Your task to perform on an android device: Is it going to rain today? Image 0: 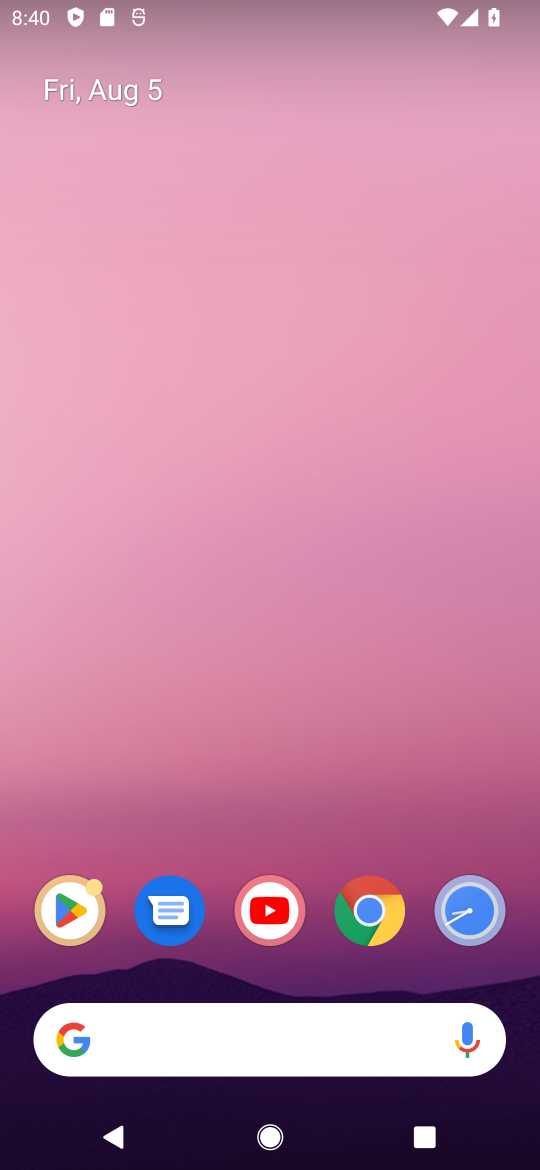
Step 0: click (371, 934)
Your task to perform on an android device: Is it going to rain today? Image 1: 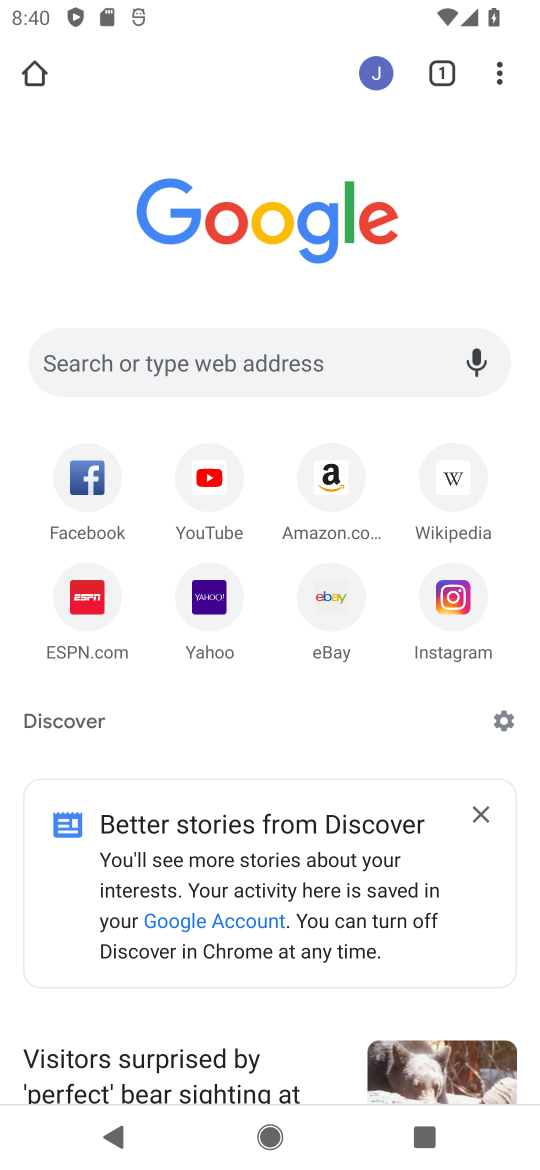
Step 1: click (269, 329)
Your task to perform on an android device: Is it going to rain today? Image 2: 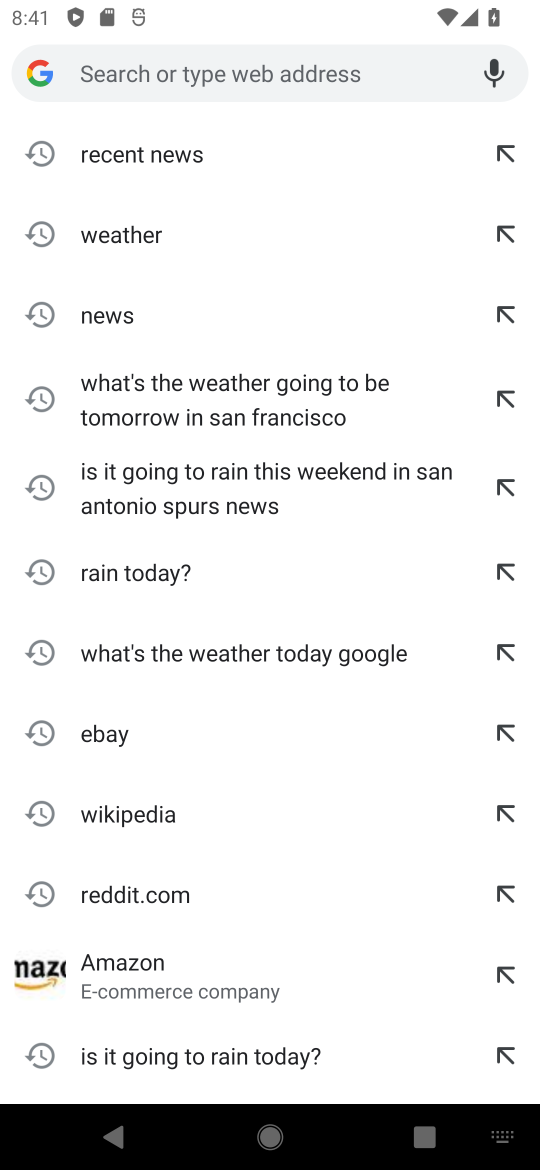
Step 2: type "weather today"
Your task to perform on an android device: Is it going to rain today? Image 3: 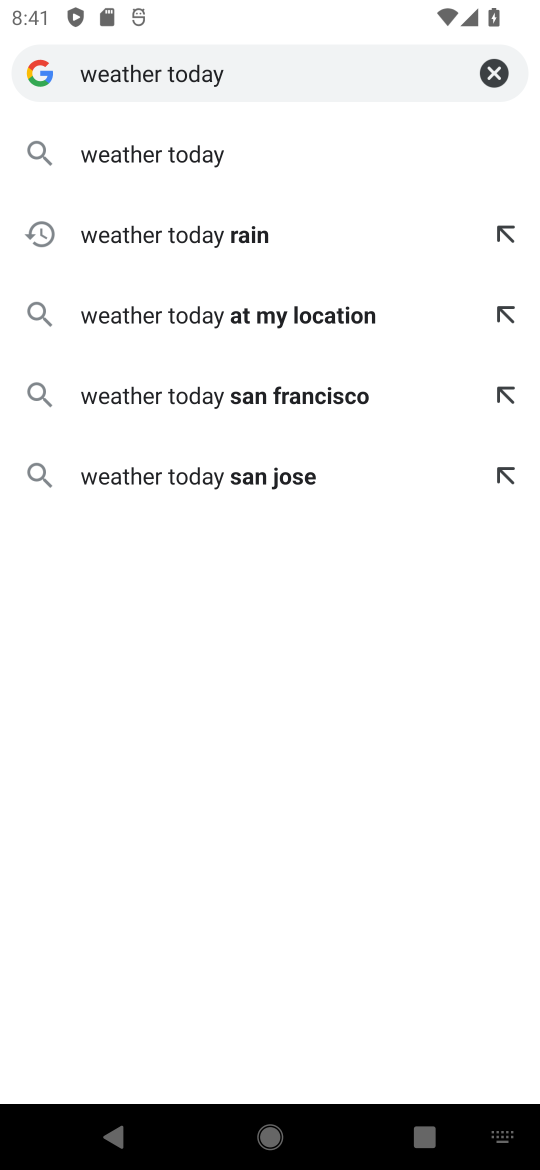
Step 3: click (222, 147)
Your task to perform on an android device: Is it going to rain today? Image 4: 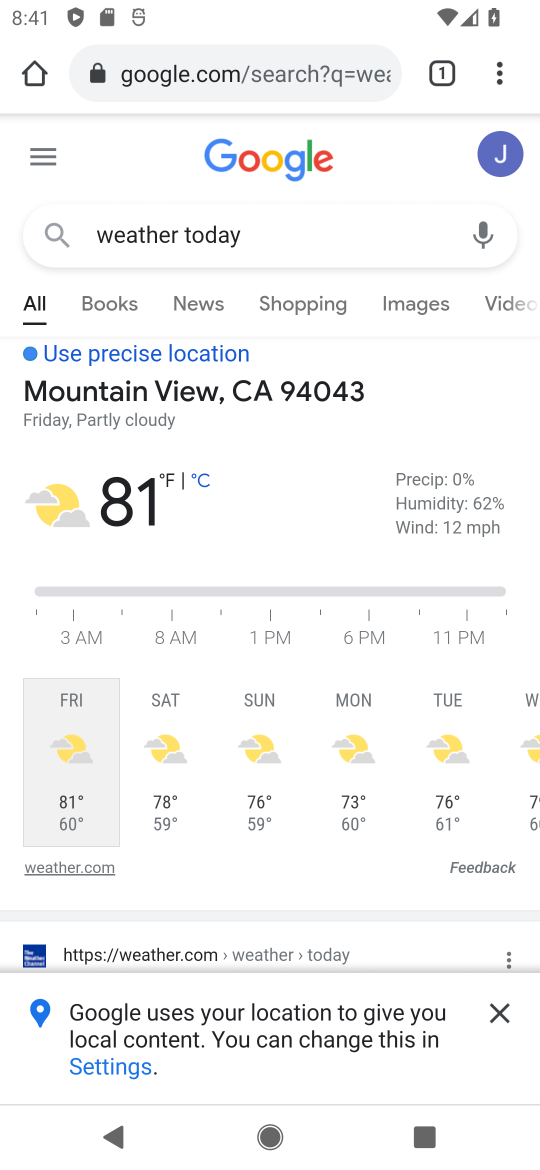
Step 4: task complete